Your task to perform on an android device: visit the assistant section in the google photos Image 0: 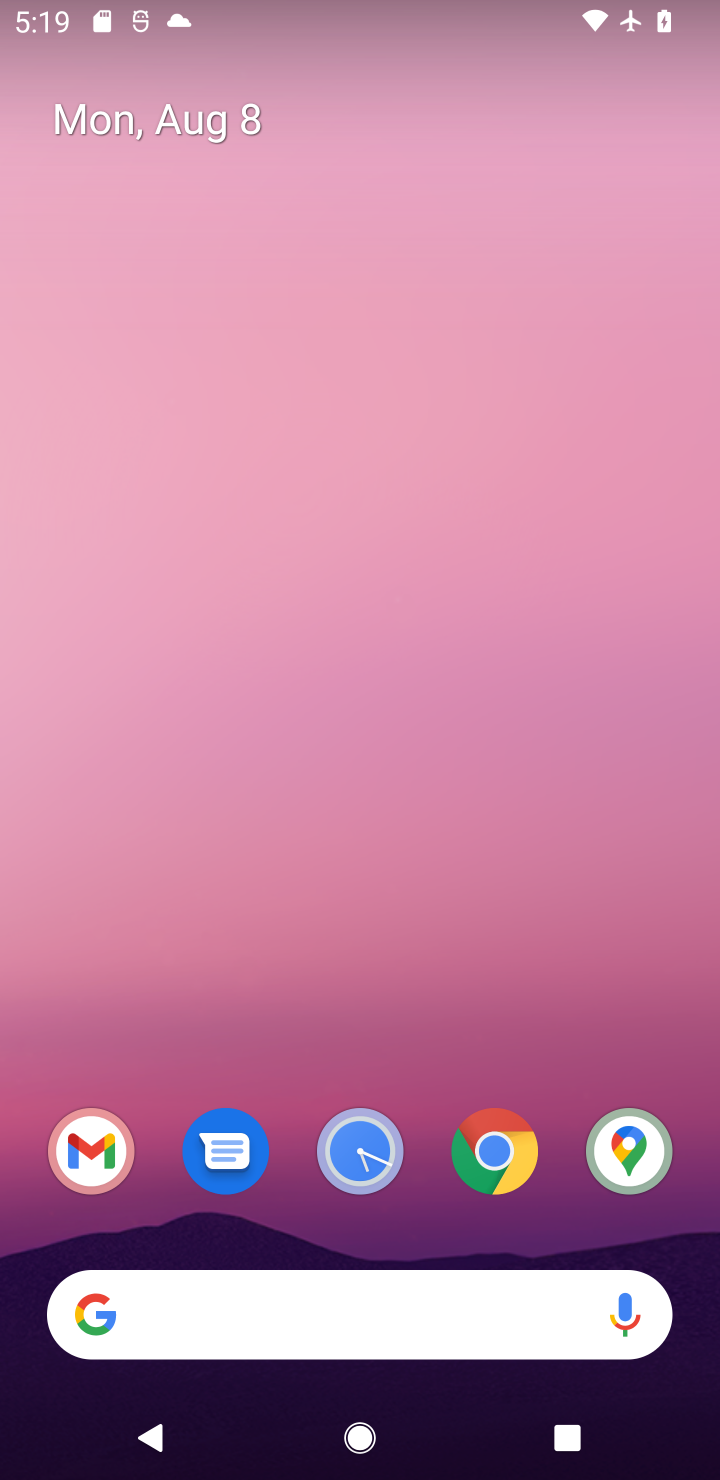
Step 0: drag from (360, 1038) to (381, 227)
Your task to perform on an android device: visit the assistant section in the google photos Image 1: 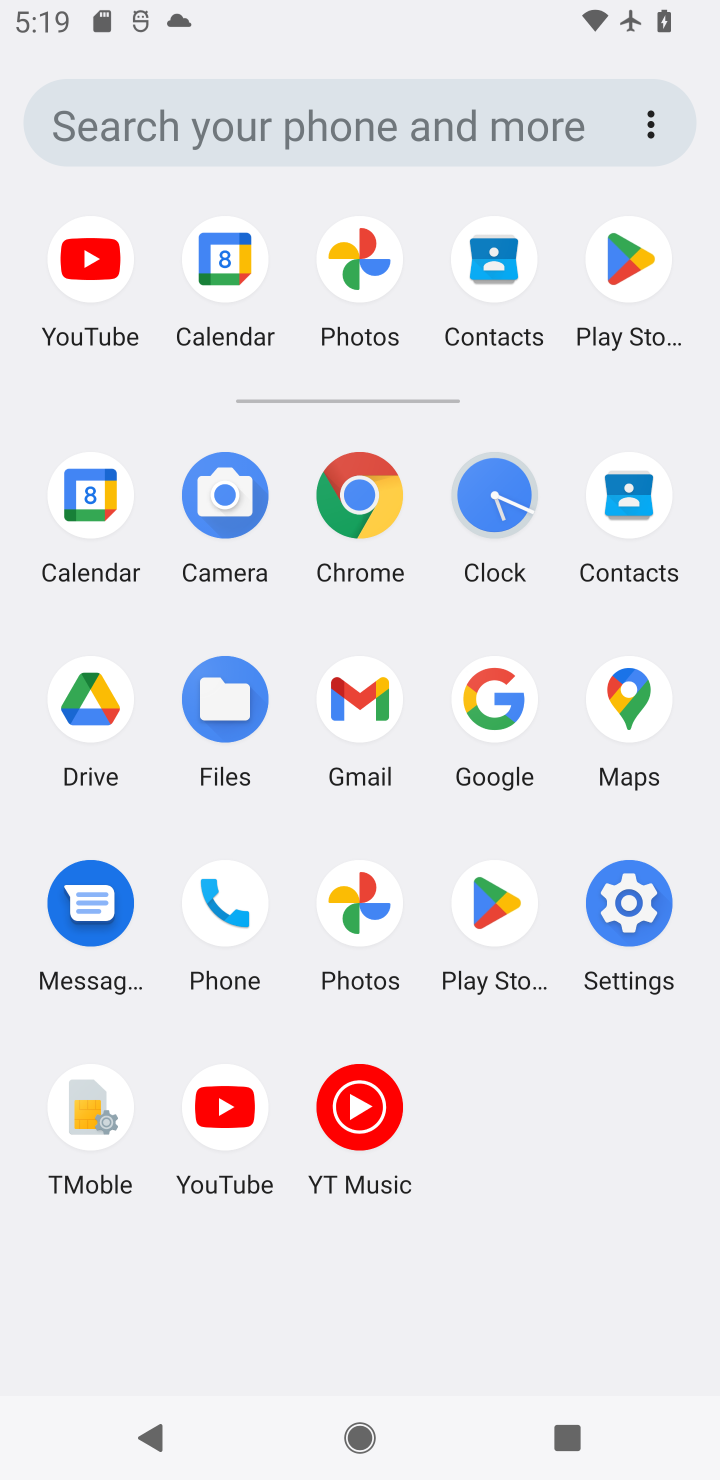
Step 1: click (367, 286)
Your task to perform on an android device: visit the assistant section in the google photos Image 2: 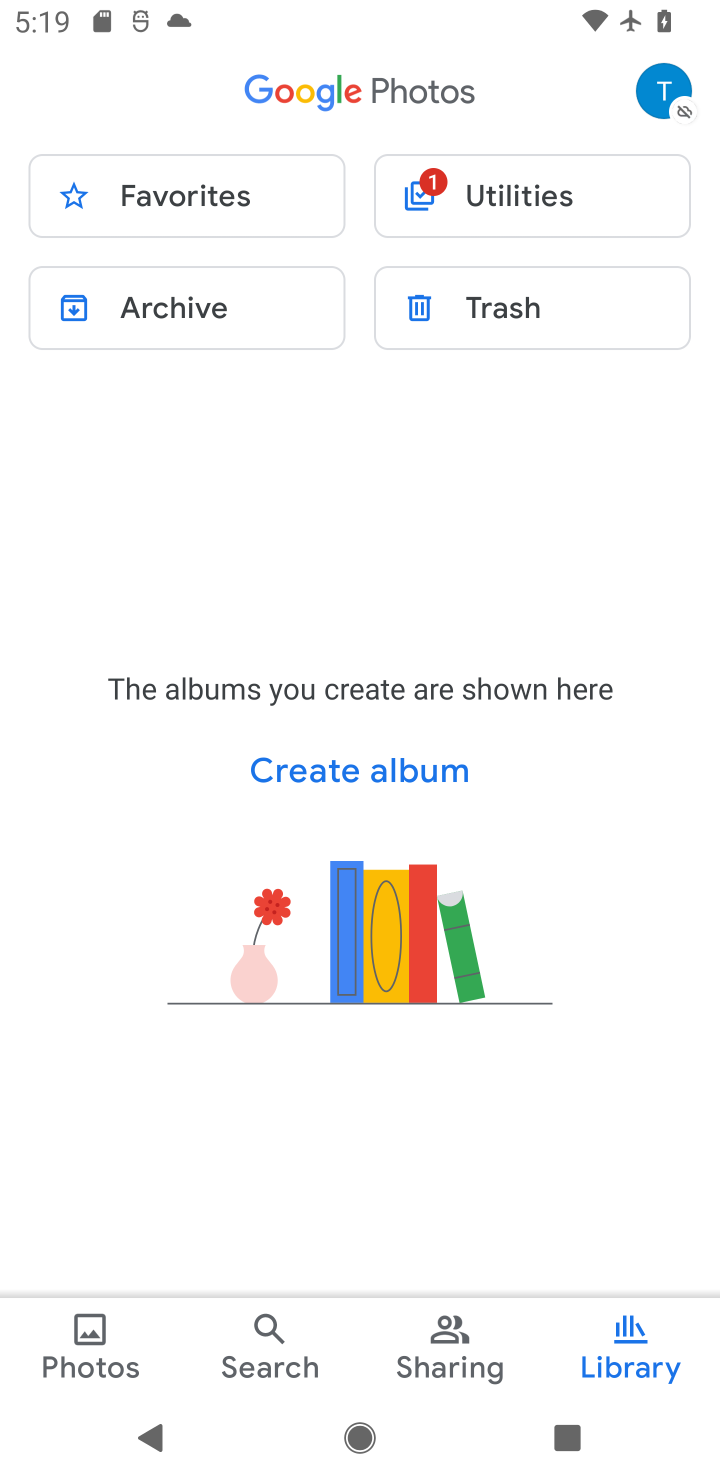
Step 2: click (466, 178)
Your task to perform on an android device: visit the assistant section in the google photos Image 3: 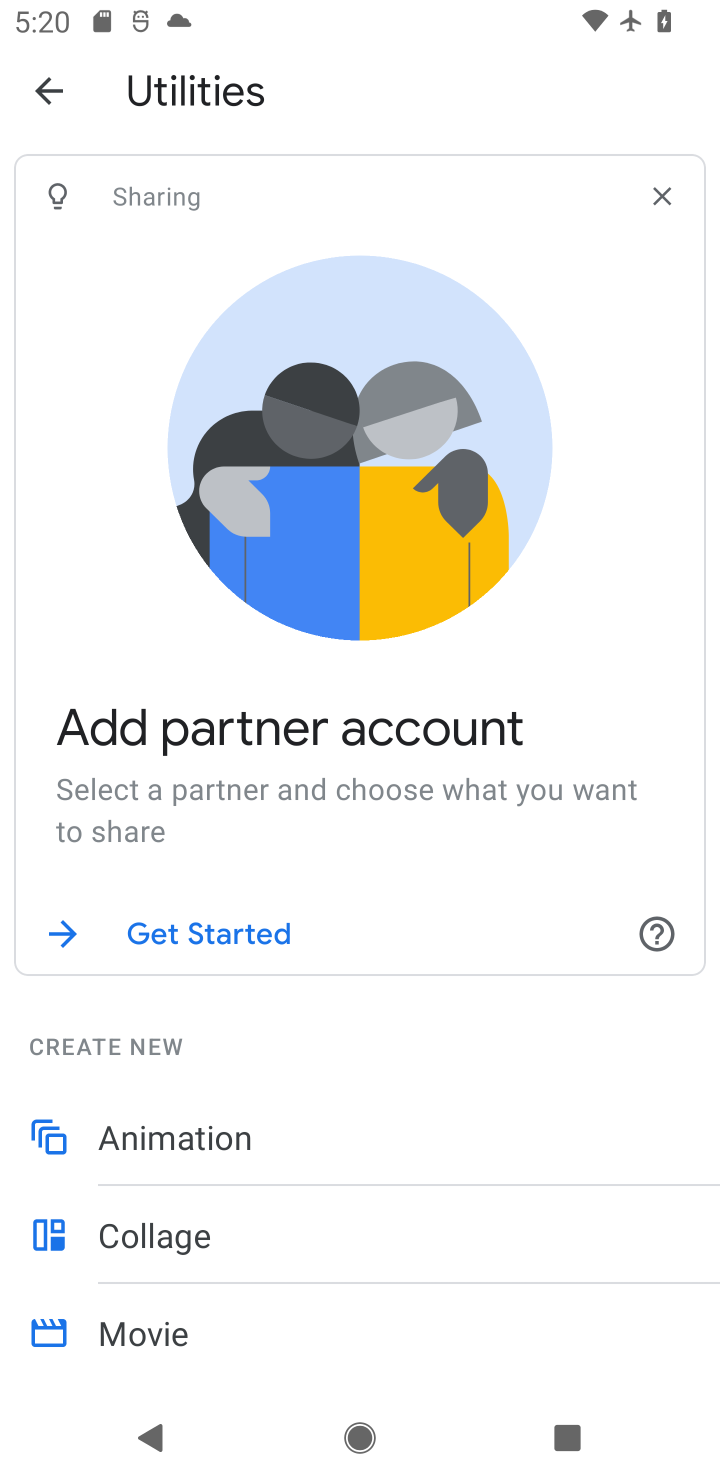
Step 3: task complete